Your task to perform on an android device: Open the web browser Image 0: 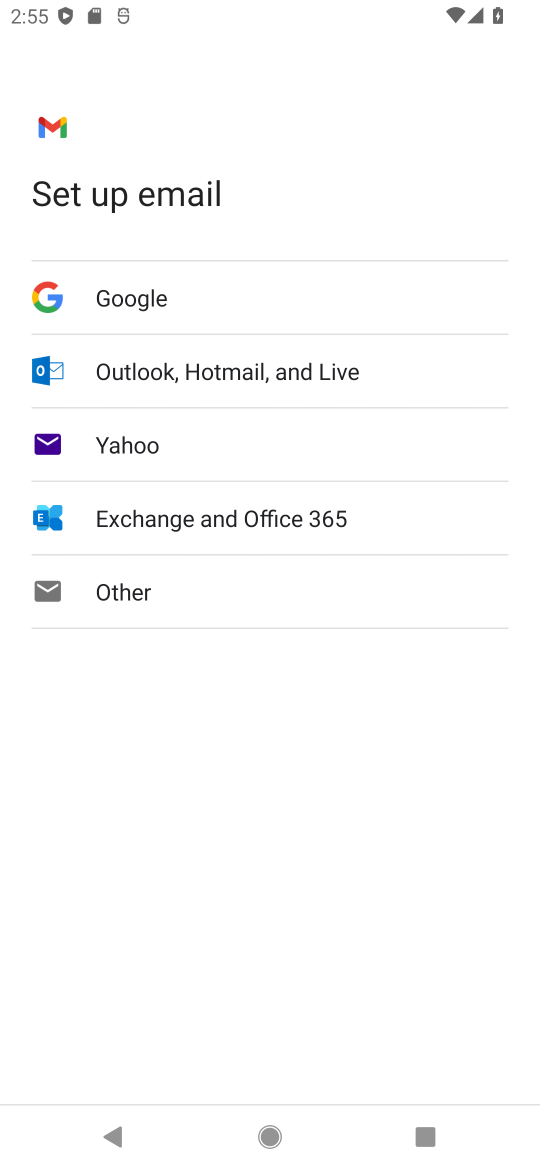
Step 0: press back button
Your task to perform on an android device: Open the web browser Image 1: 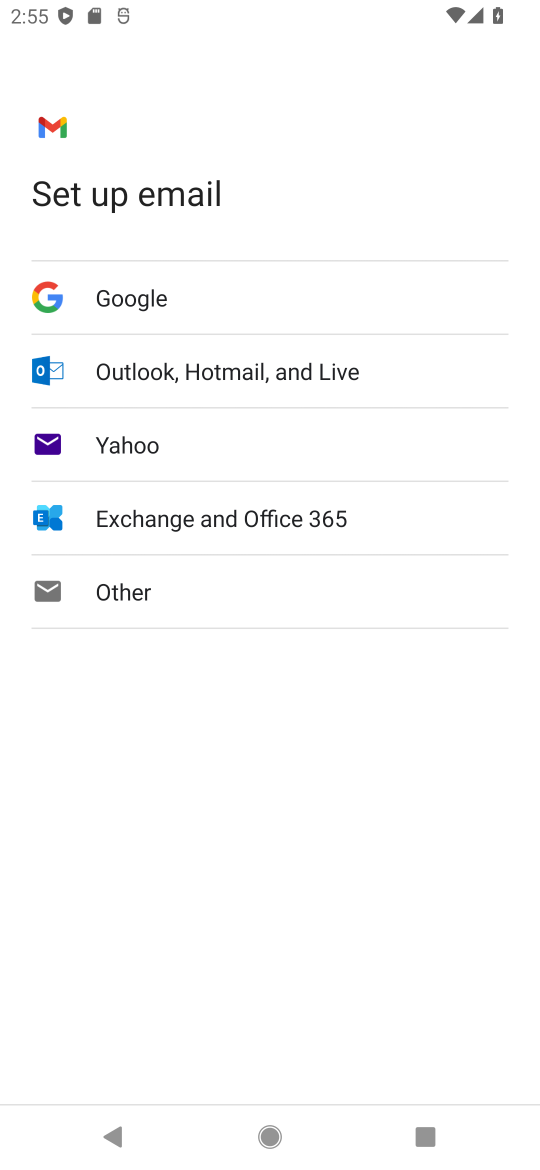
Step 1: press back button
Your task to perform on an android device: Open the web browser Image 2: 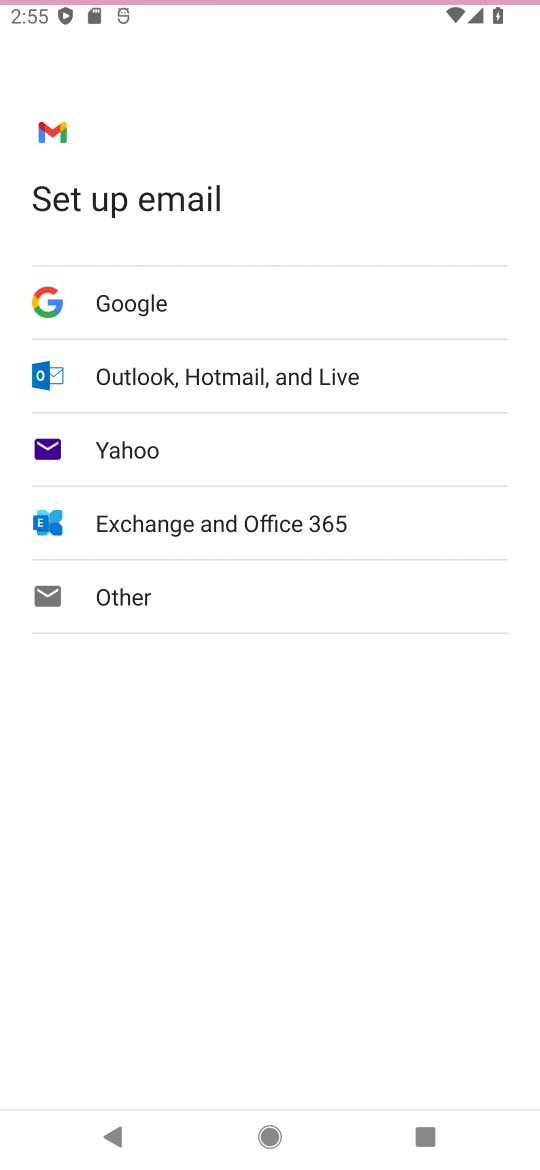
Step 2: press back button
Your task to perform on an android device: Open the web browser Image 3: 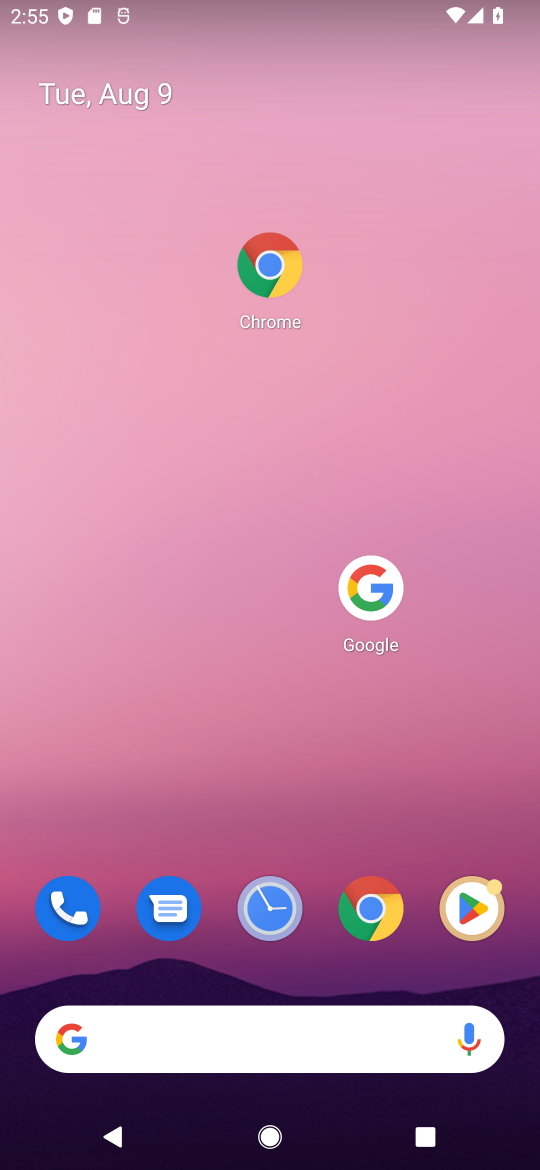
Step 3: drag from (394, 462) to (303, 72)
Your task to perform on an android device: Open the web browser Image 4: 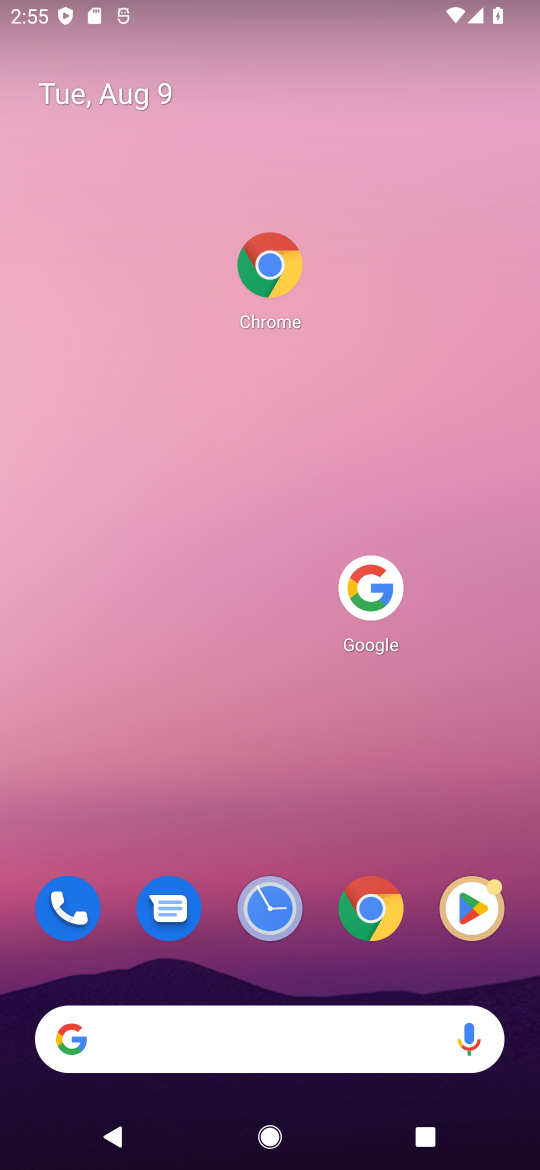
Step 4: drag from (288, 690) to (236, 190)
Your task to perform on an android device: Open the web browser Image 5: 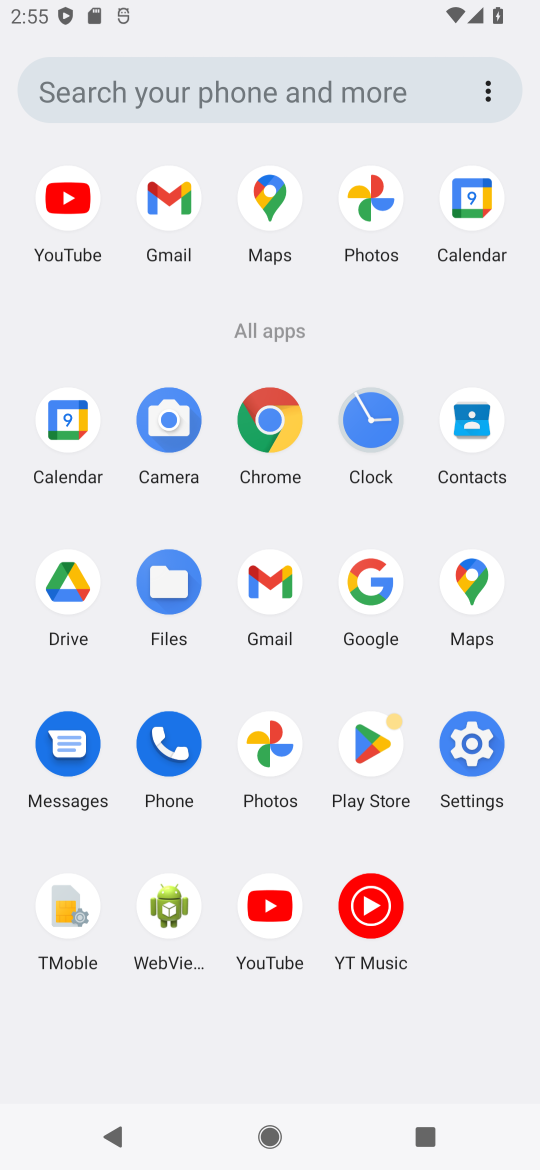
Step 5: click (332, 584)
Your task to perform on an android device: Open the web browser Image 6: 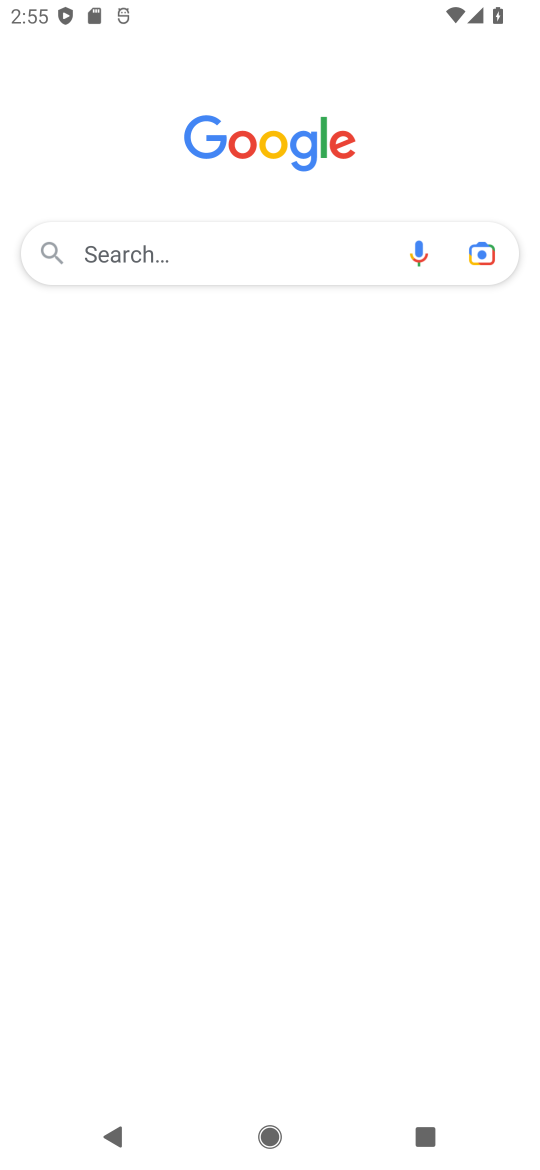
Step 6: click (260, 430)
Your task to perform on an android device: Open the web browser Image 7: 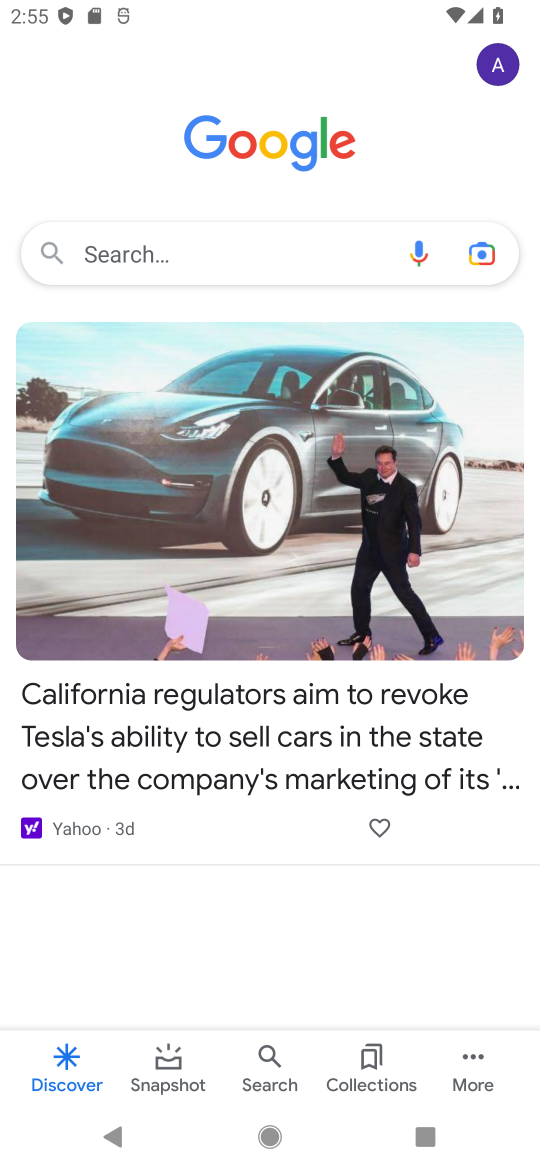
Step 7: task complete